Your task to perform on an android device: toggle improve location accuracy Image 0: 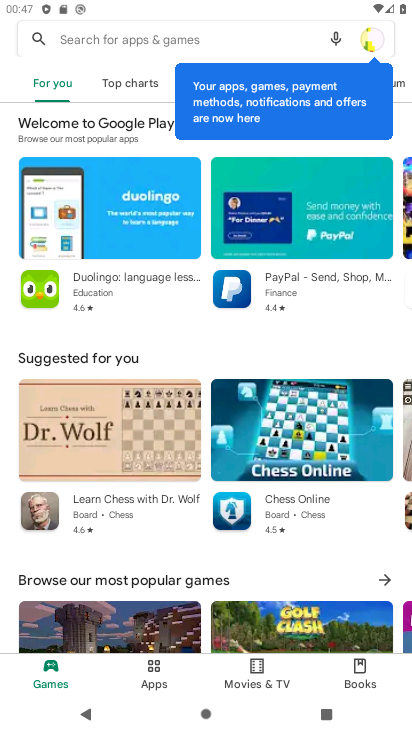
Step 0: press home button
Your task to perform on an android device: toggle improve location accuracy Image 1: 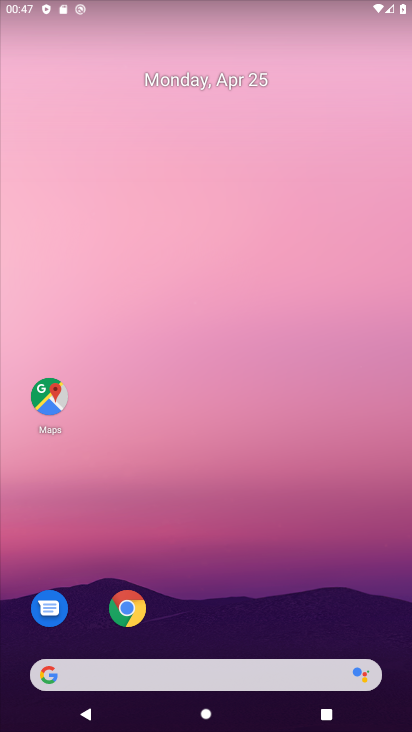
Step 1: drag from (223, 633) to (197, 243)
Your task to perform on an android device: toggle improve location accuracy Image 2: 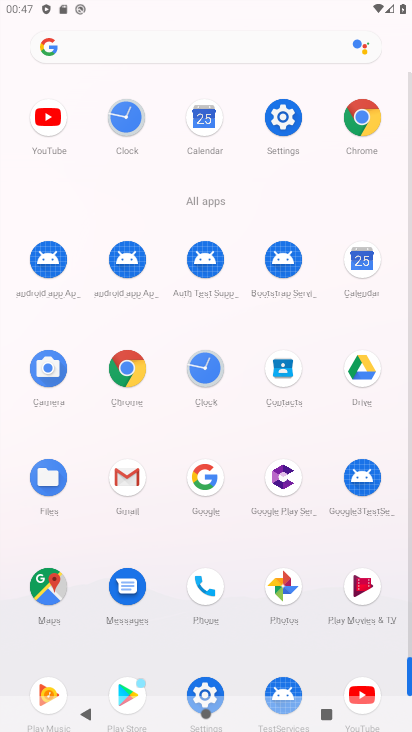
Step 2: click (282, 115)
Your task to perform on an android device: toggle improve location accuracy Image 3: 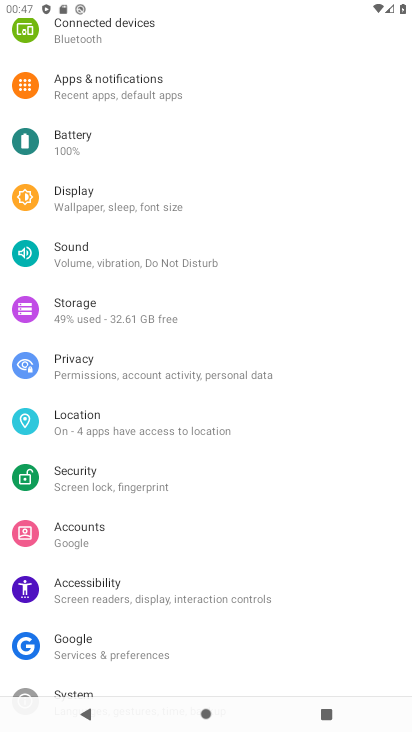
Step 3: click (222, 426)
Your task to perform on an android device: toggle improve location accuracy Image 4: 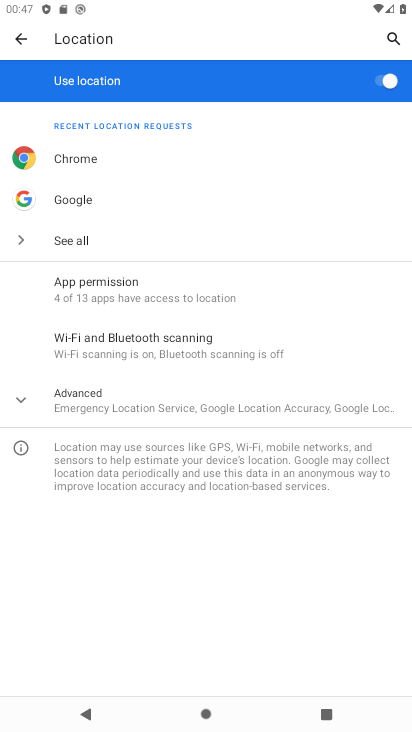
Step 4: click (222, 413)
Your task to perform on an android device: toggle improve location accuracy Image 5: 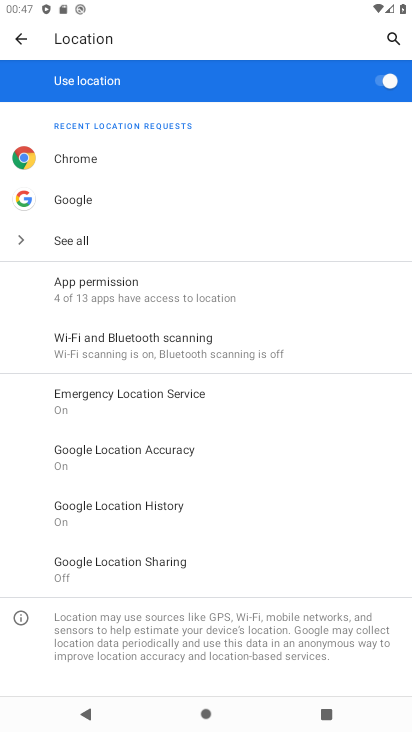
Step 5: click (216, 447)
Your task to perform on an android device: toggle improve location accuracy Image 6: 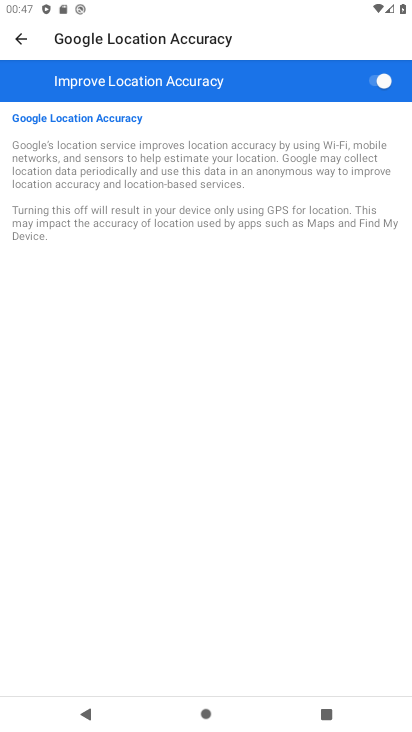
Step 6: click (375, 86)
Your task to perform on an android device: toggle improve location accuracy Image 7: 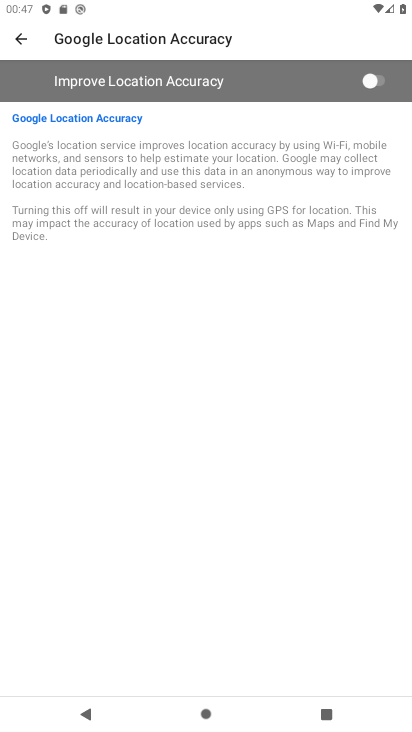
Step 7: task complete